Your task to perform on an android device: What's the weather like in Los Angeles? Image 0: 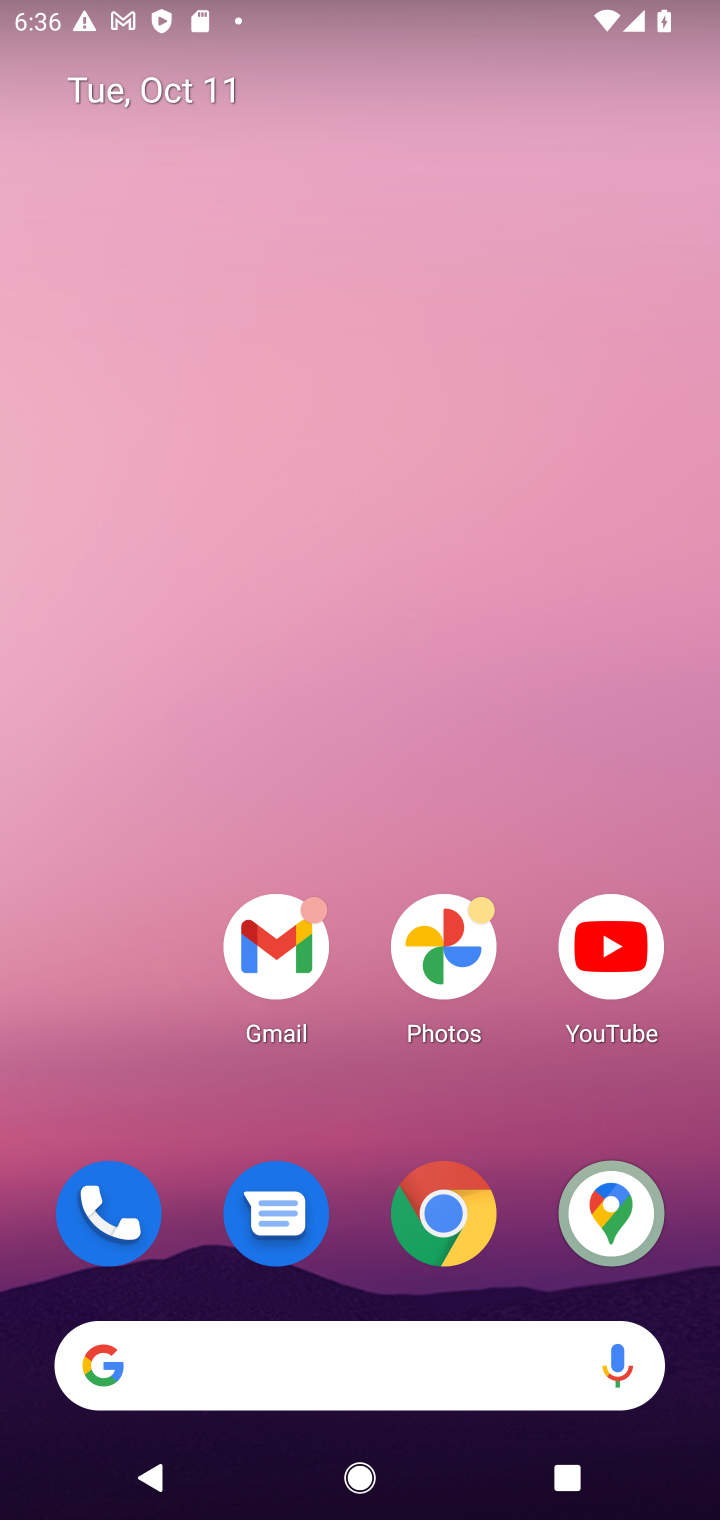
Step 0: drag from (238, 1332) to (304, 307)
Your task to perform on an android device: What's the weather like in Los Angeles? Image 1: 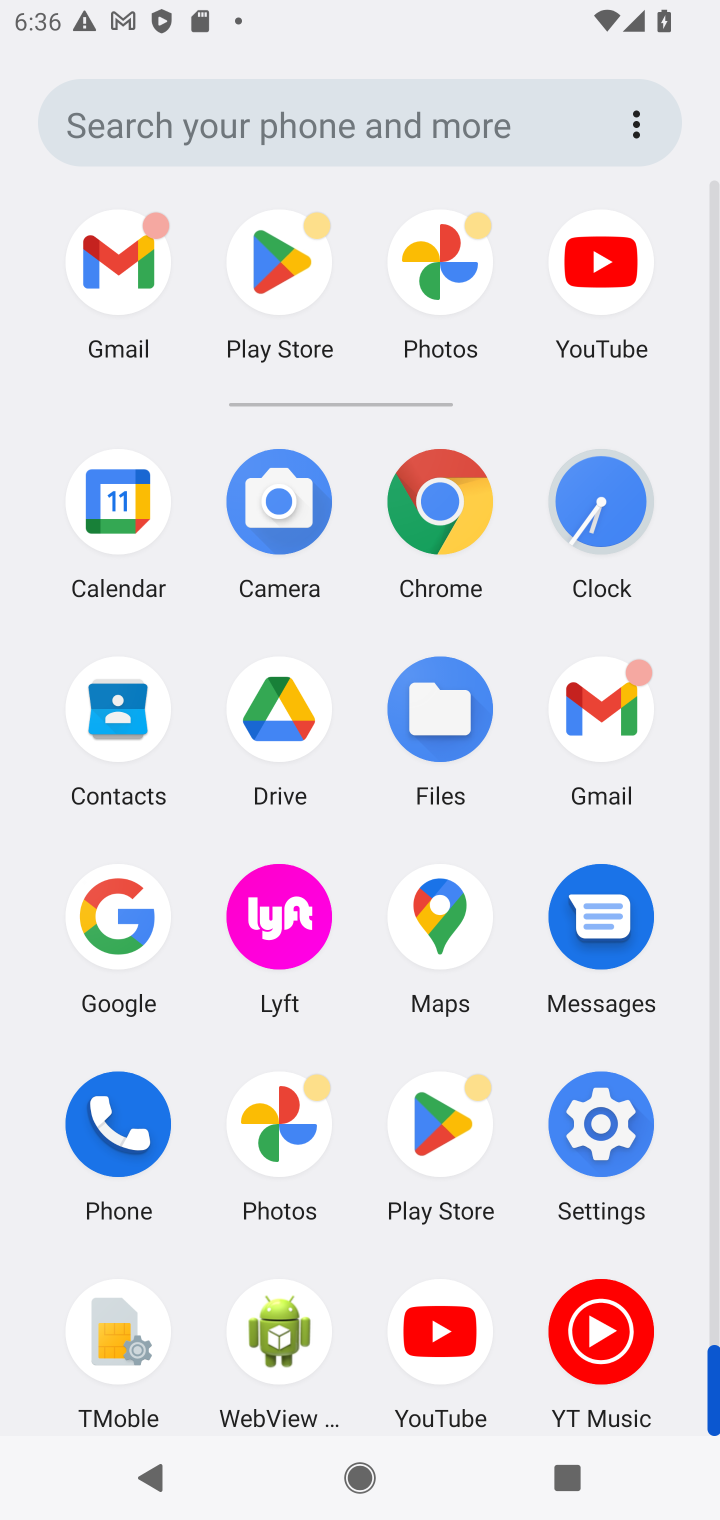
Step 1: click (118, 918)
Your task to perform on an android device: What's the weather like in Los Angeles? Image 2: 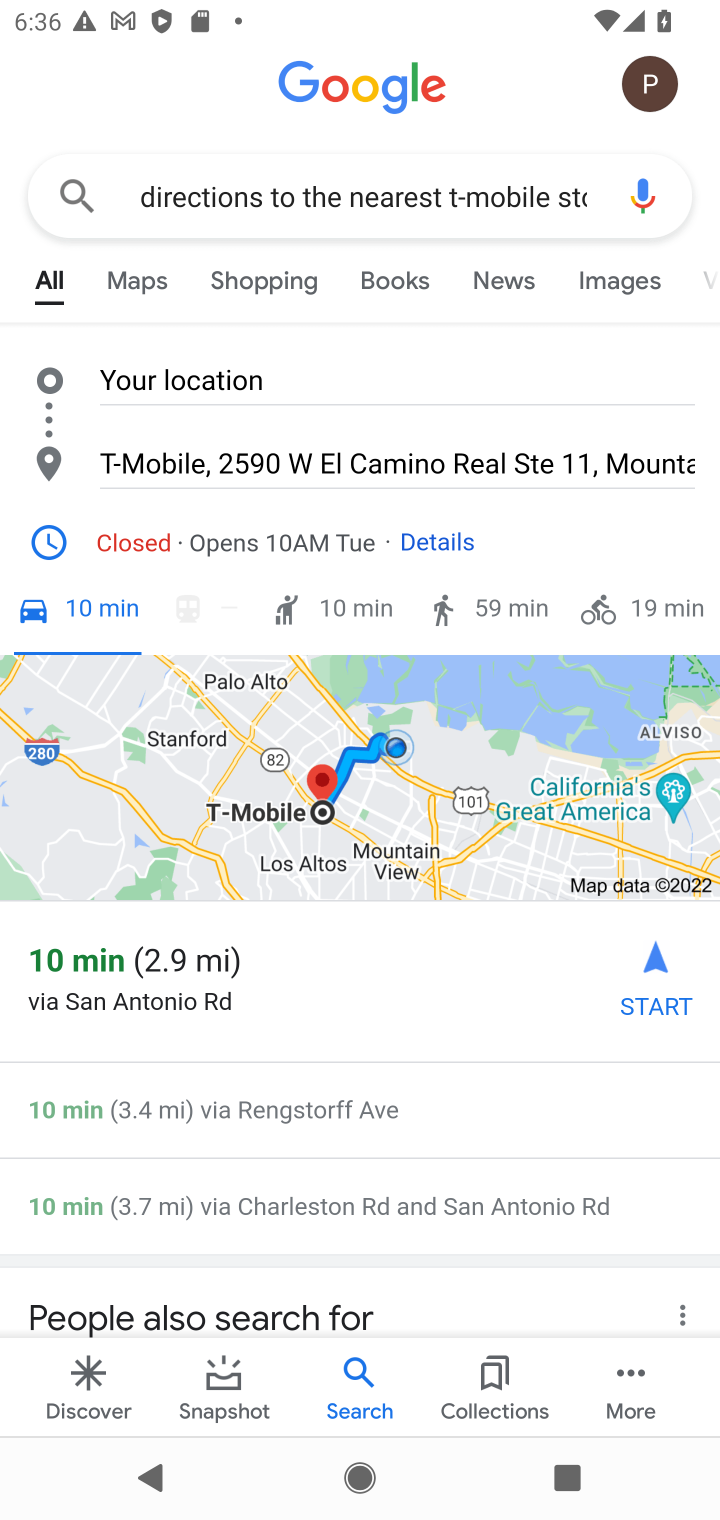
Step 2: click (313, 200)
Your task to perform on an android device: What's the weather like in Los Angeles? Image 3: 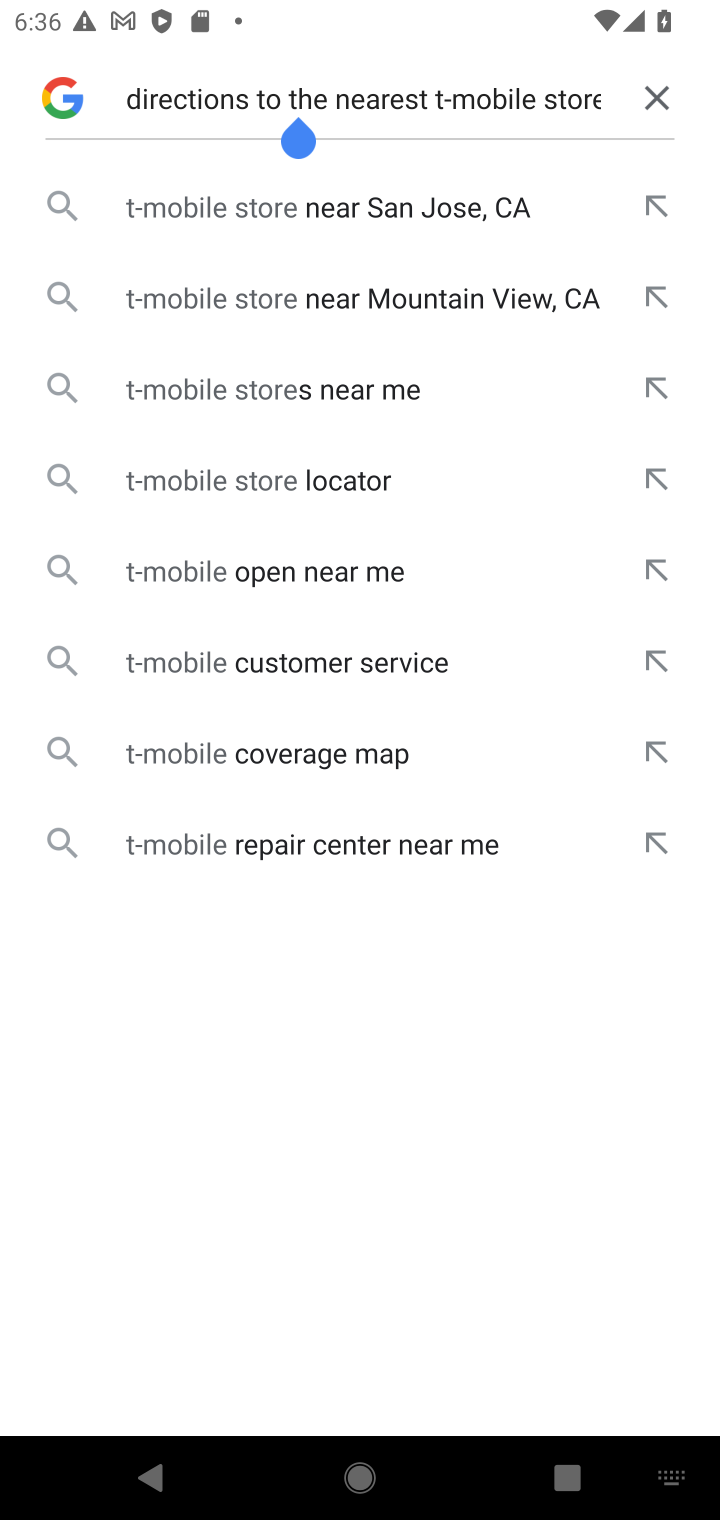
Step 3: click (652, 92)
Your task to perform on an android device: What's the weather like in Los Angeles? Image 4: 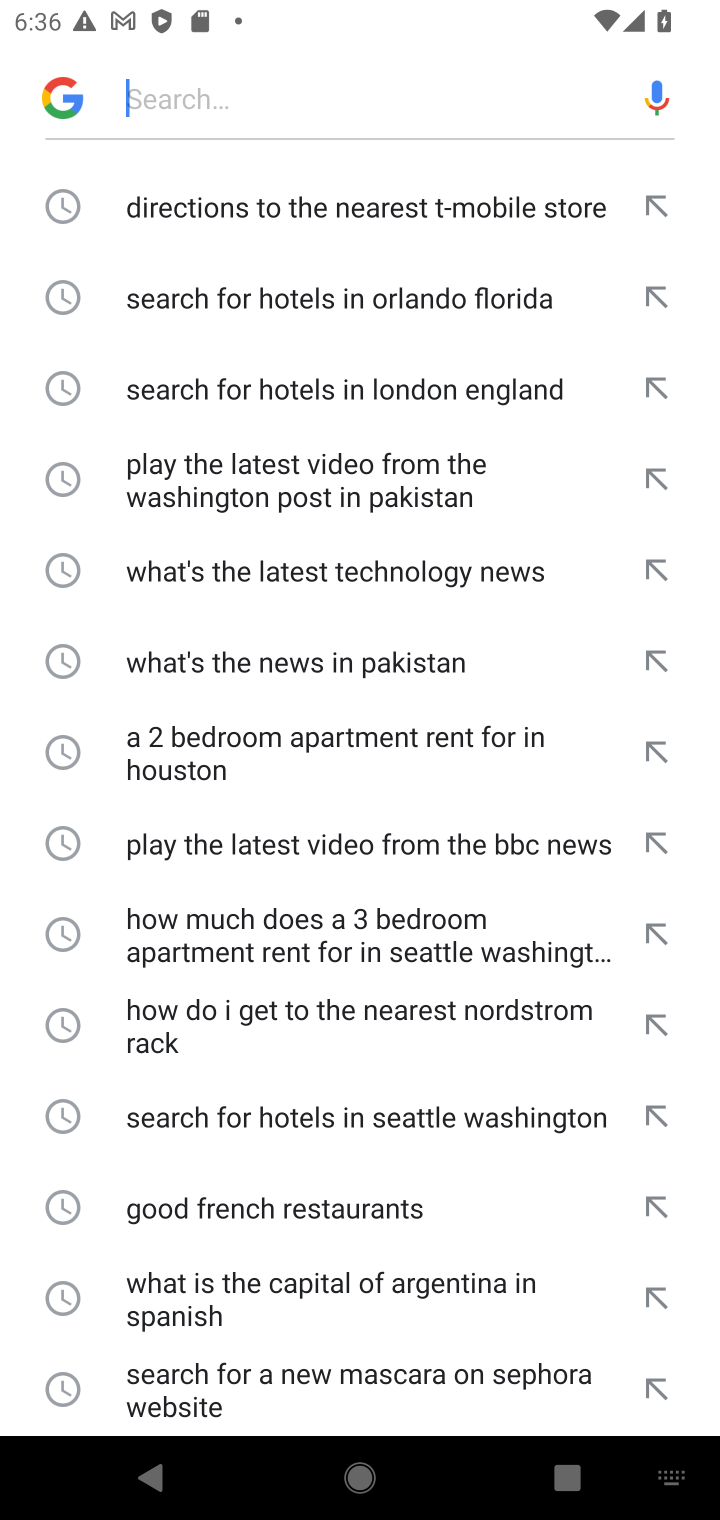
Step 4: type "What's the weather like in Los Angeles?"
Your task to perform on an android device: What's the weather like in Los Angeles? Image 5: 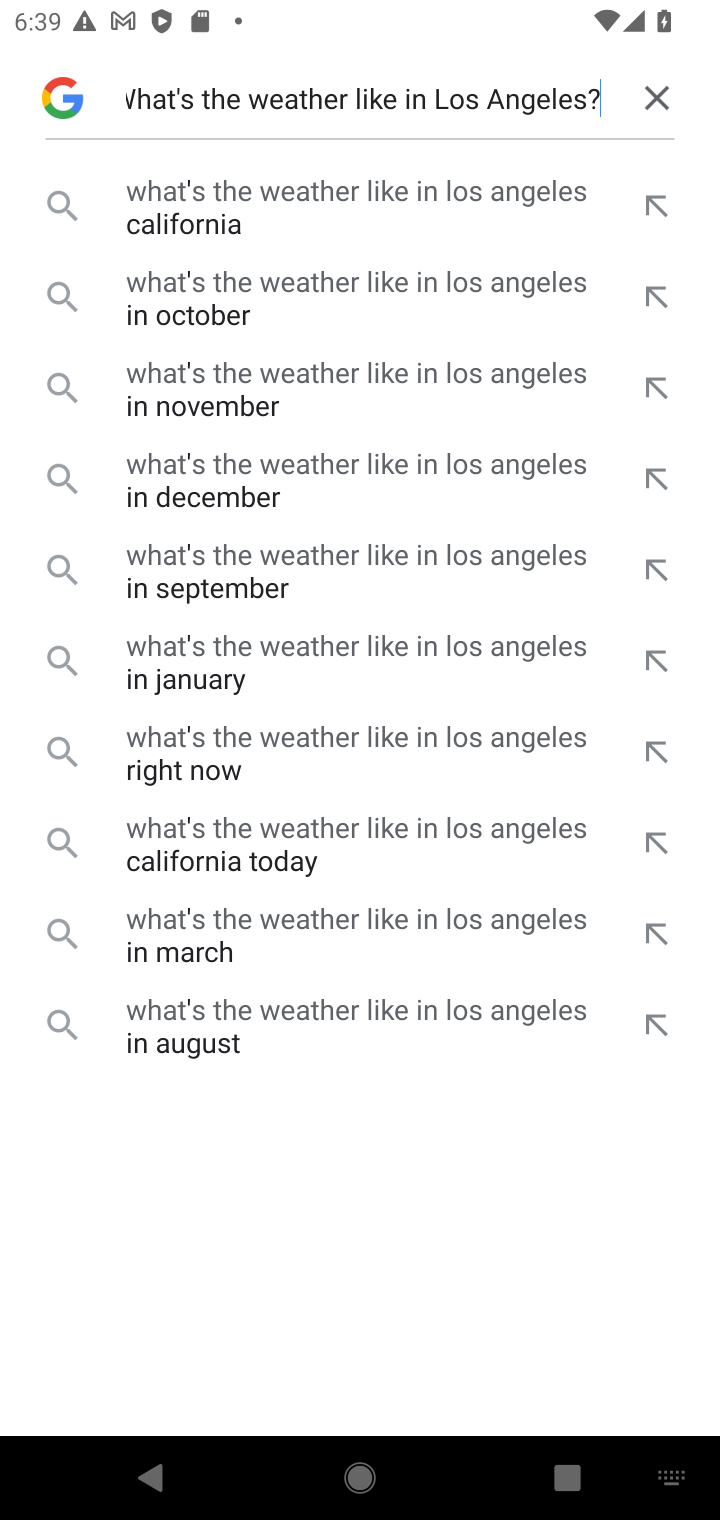
Step 5: click (483, 200)
Your task to perform on an android device: What's the weather like in Los Angeles? Image 6: 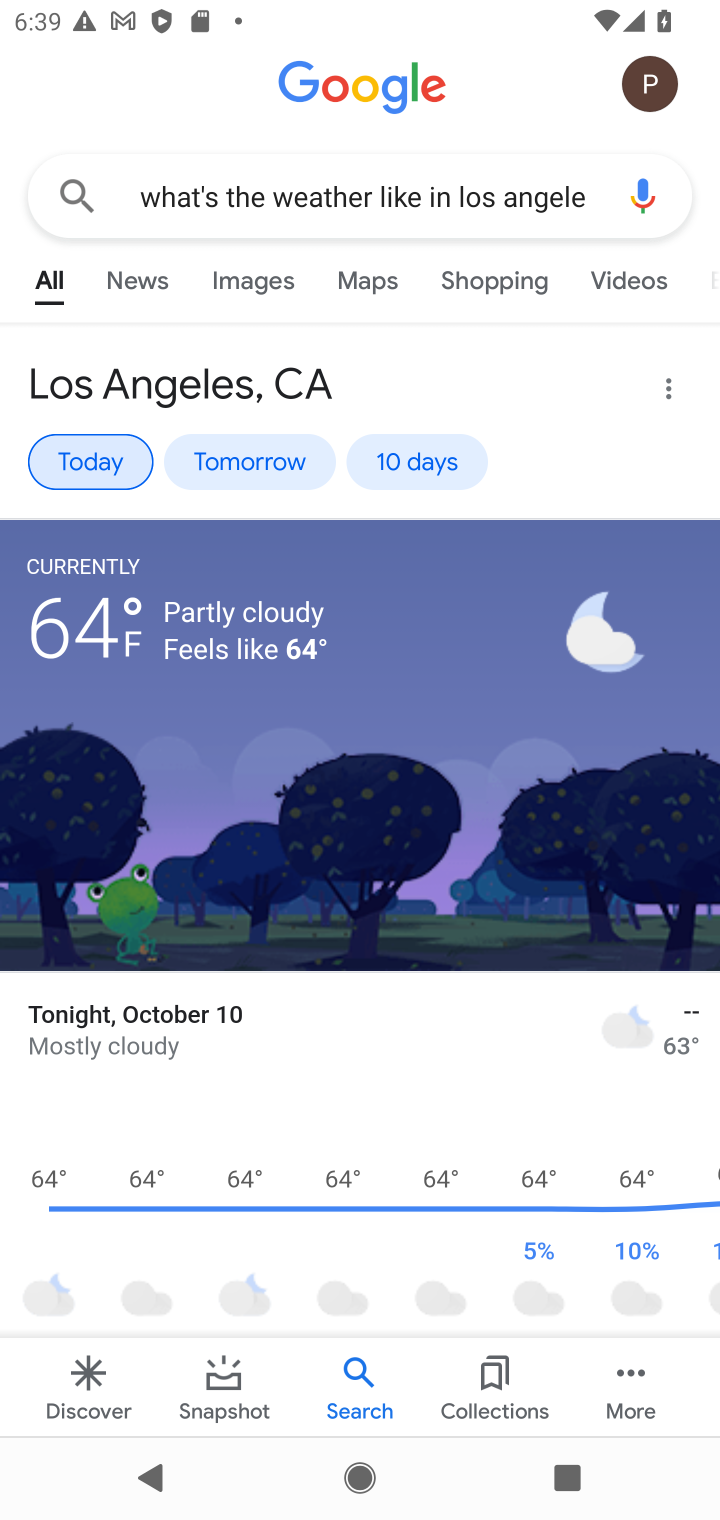
Step 6: task complete